Your task to perform on an android device: Go to CNN.com Image 0: 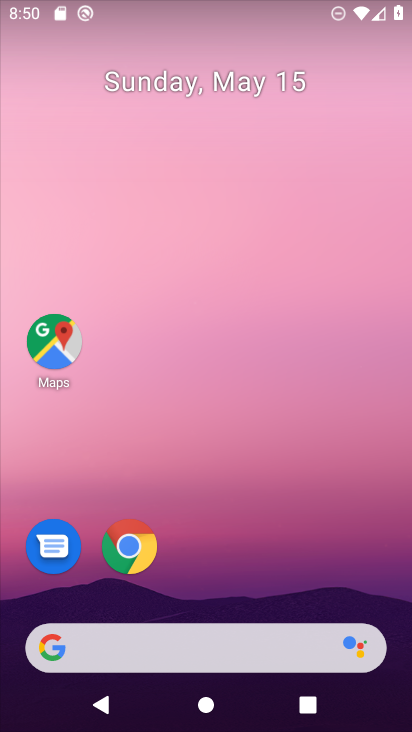
Step 0: click (263, 651)
Your task to perform on an android device: Go to CNN.com Image 1: 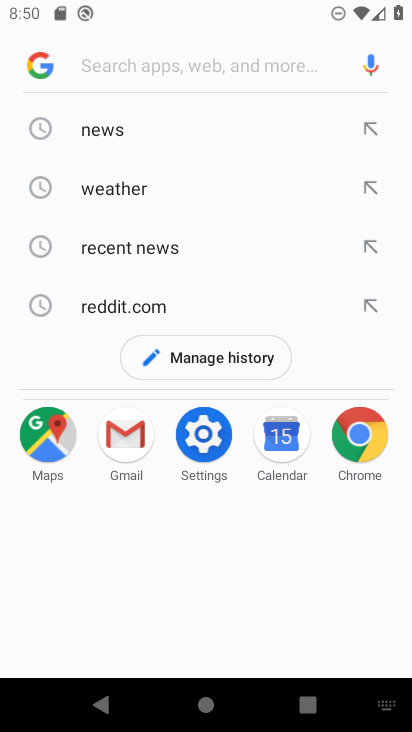
Step 1: type "cnn.com"
Your task to perform on an android device: Go to CNN.com Image 2: 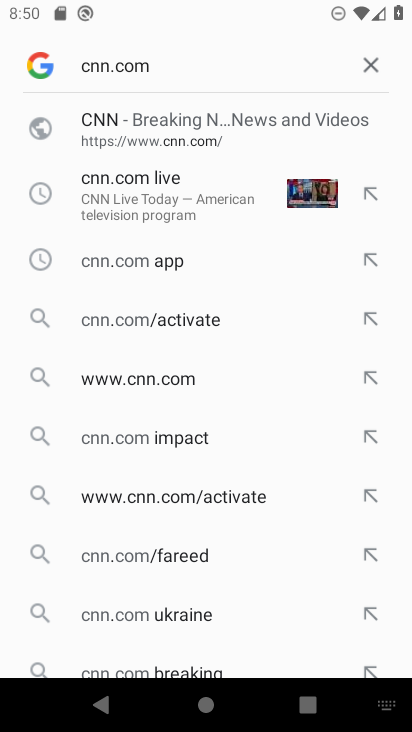
Step 2: click (88, 121)
Your task to perform on an android device: Go to CNN.com Image 3: 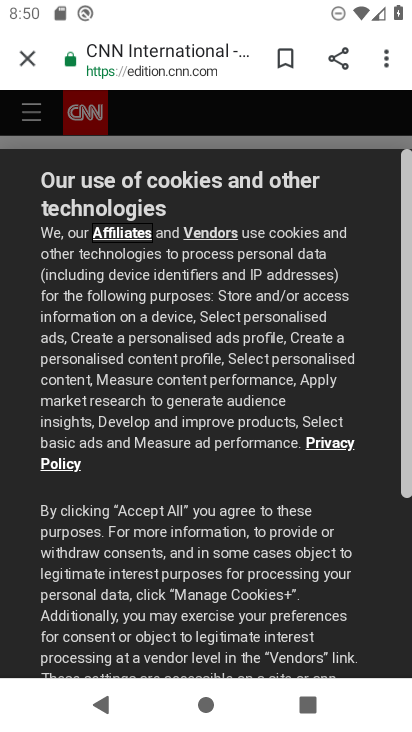
Step 3: task complete